Your task to perform on an android device: Turn off the flashlight Image 0: 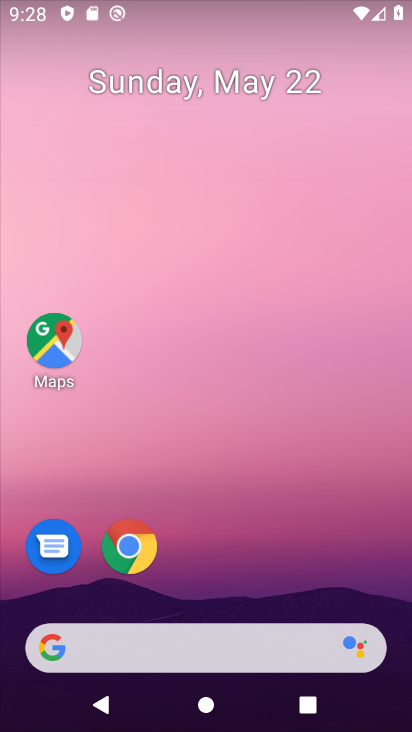
Step 0: drag from (225, 9) to (249, 486)
Your task to perform on an android device: Turn off the flashlight Image 1: 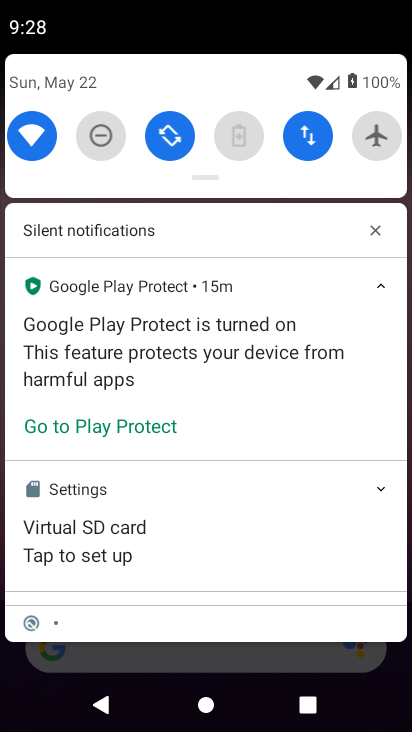
Step 1: drag from (204, 152) to (213, 665)
Your task to perform on an android device: Turn off the flashlight Image 2: 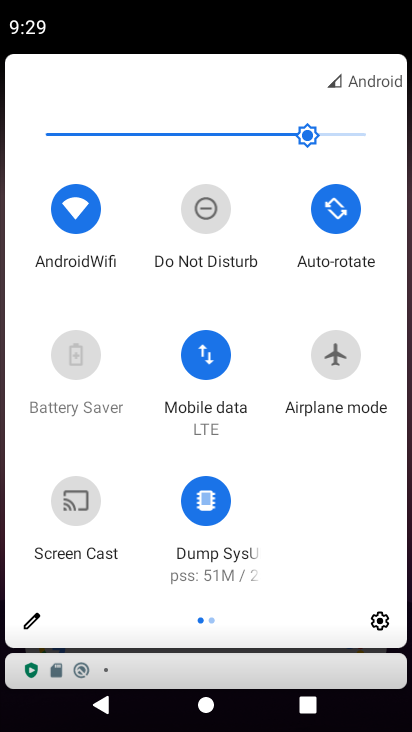
Step 2: click (27, 630)
Your task to perform on an android device: Turn off the flashlight Image 3: 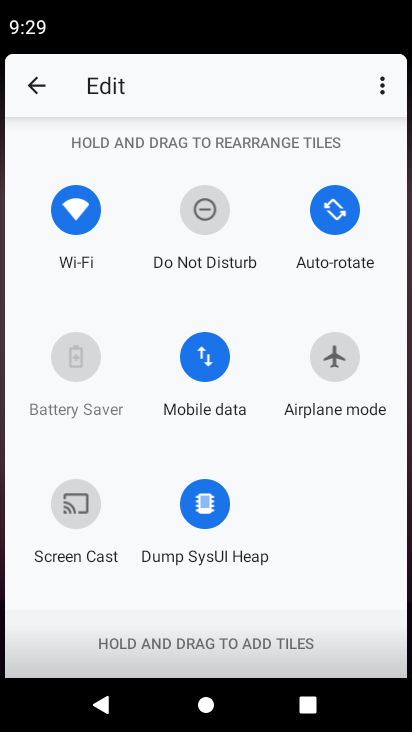
Step 3: task complete